Your task to perform on an android device: install app "Firefox Browser" Image 0: 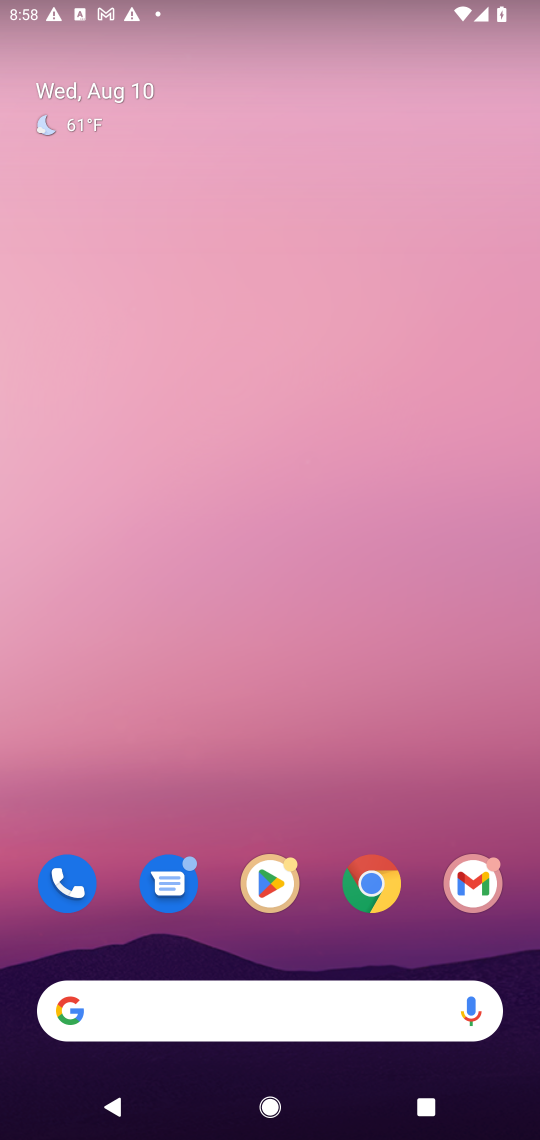
Step 0: click (266, 899)
Your task to perform on an android device: install app "Firefox Browser" Image 1: 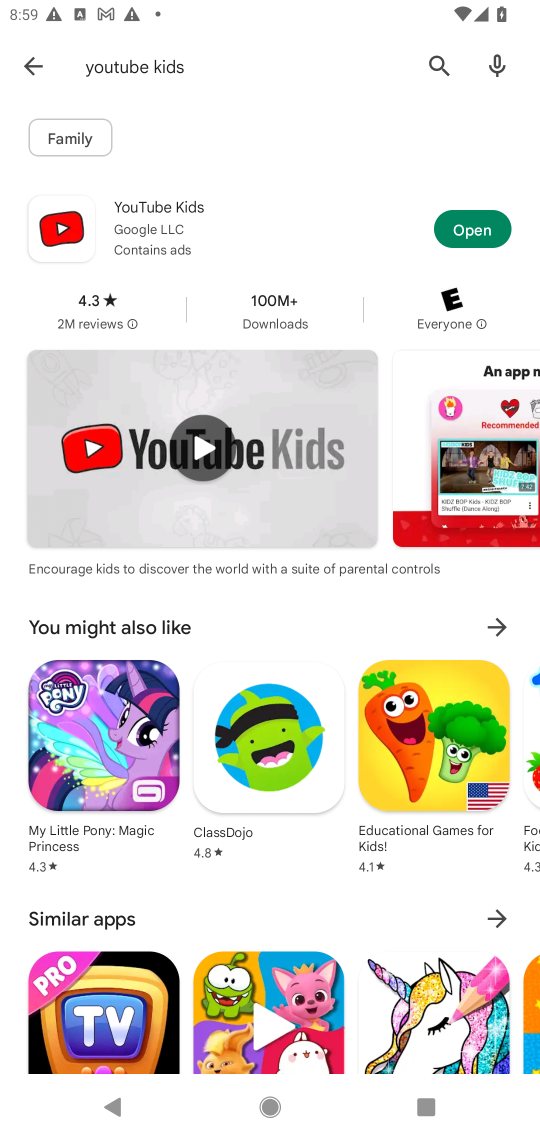
Step 1: click (421, 54)
Your task to perform on an android device: install app "Firefox Browser" Image 2: 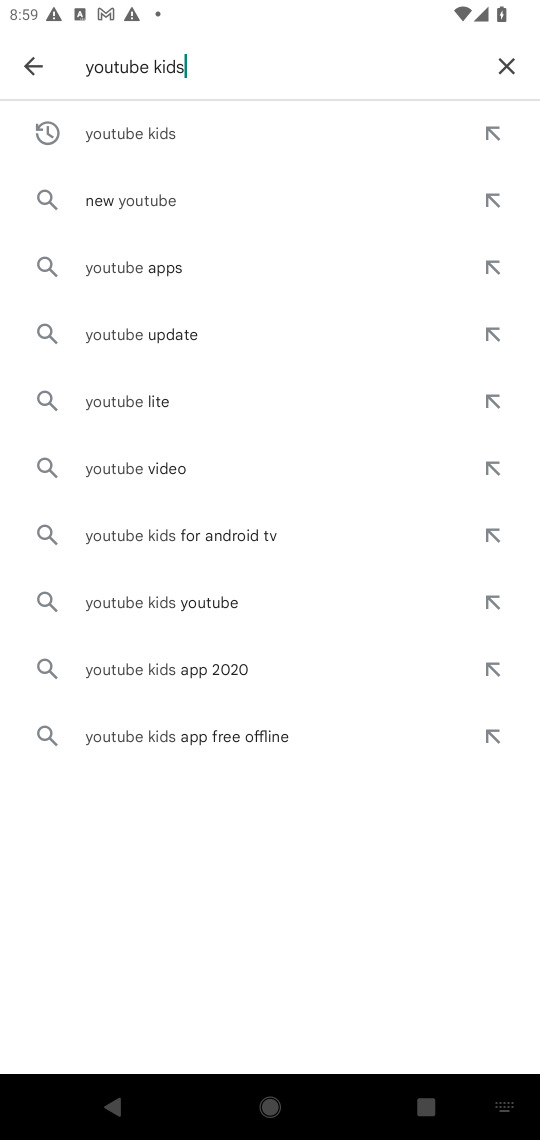
Step 2: click (498, 65)
Your task to perform on an android device: install app "Firefox Browser" Image 3: 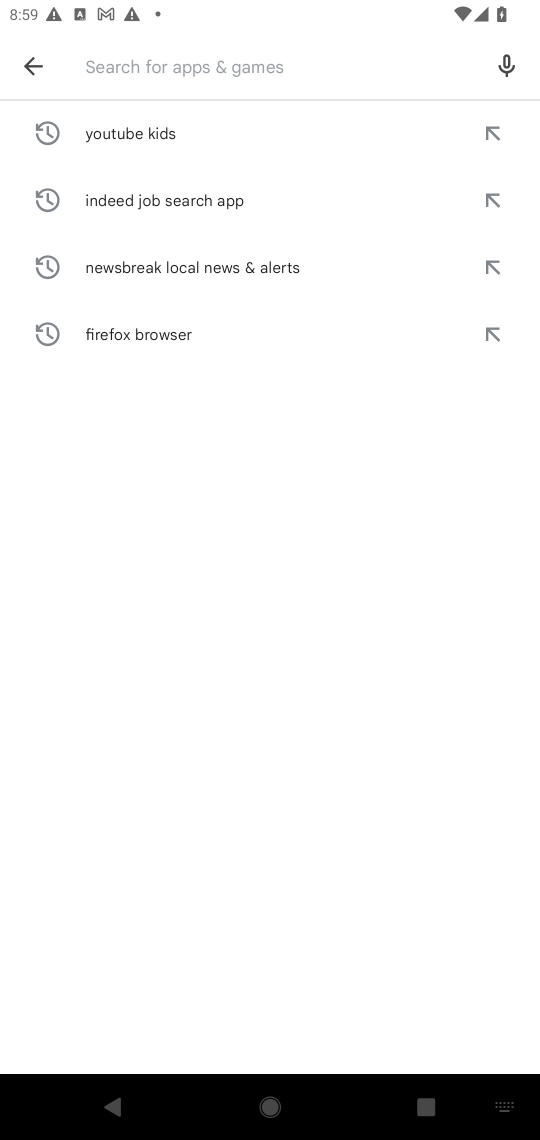
Step 3: type "Firefox Browser"
Your task to perform on an android device: install app "Firefox Browser" Image 4: 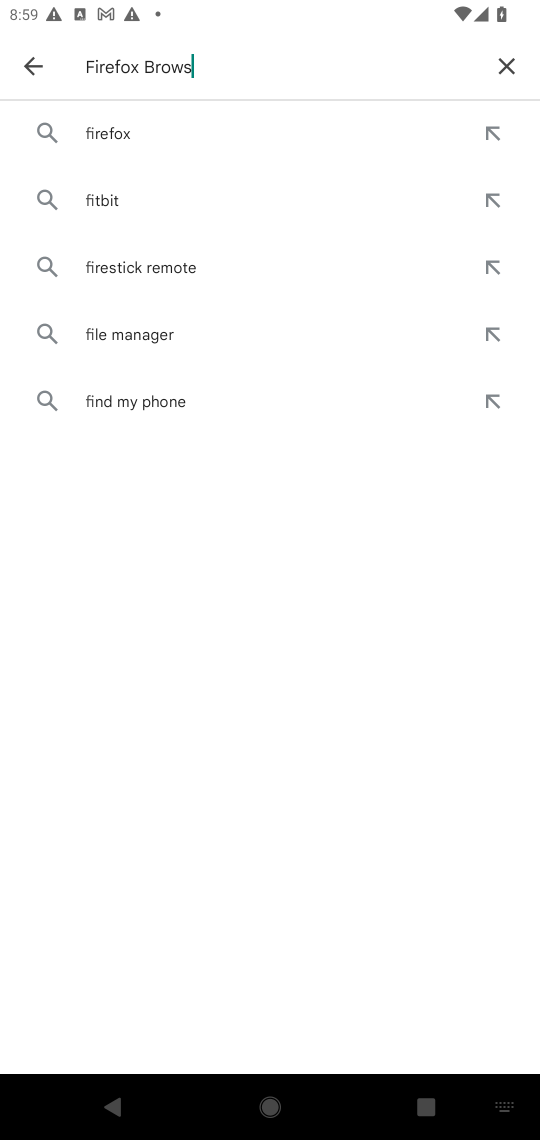
Step 4: type ""
Your task to perform on an android device: install app "Firefox Browser" Image 5: 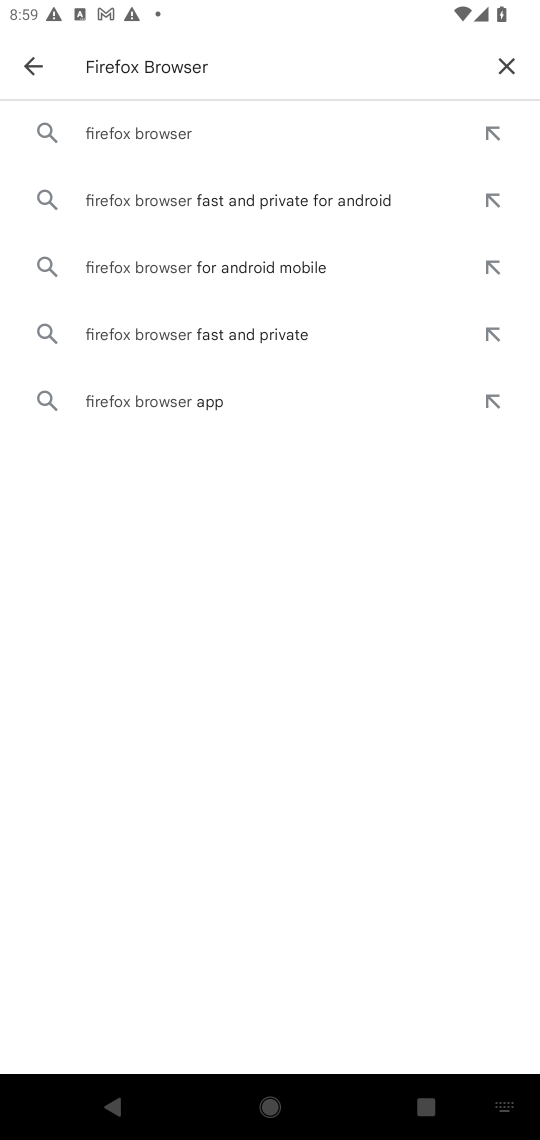
Step 5: click (174, 116)
Your task to perform on an android device: install app "Firefox Browser" Image 6: 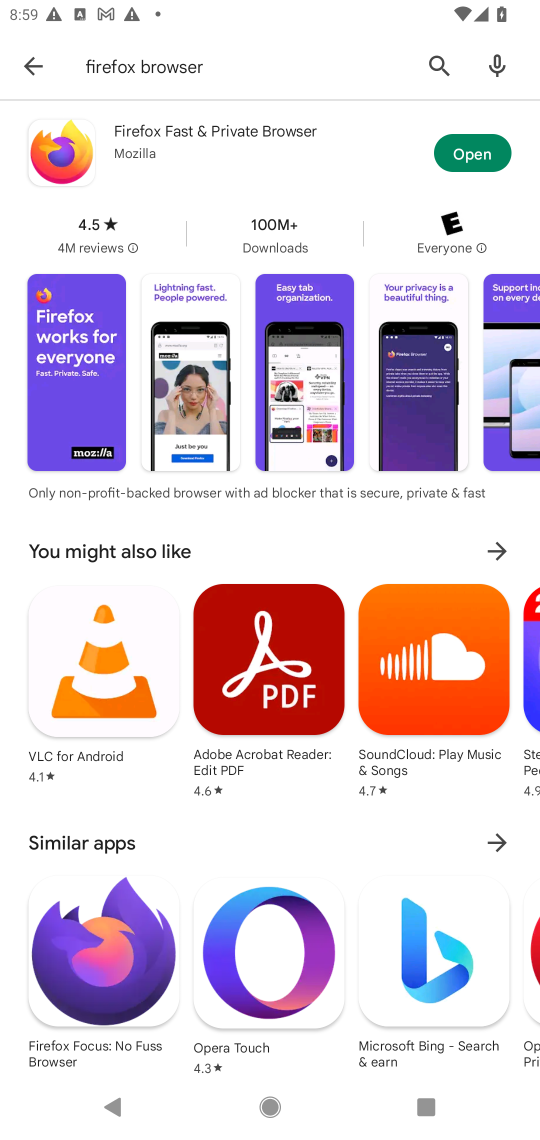
Step 6: task complete